Your task to perform on an android device: add a contact in the contacts app Image 0: 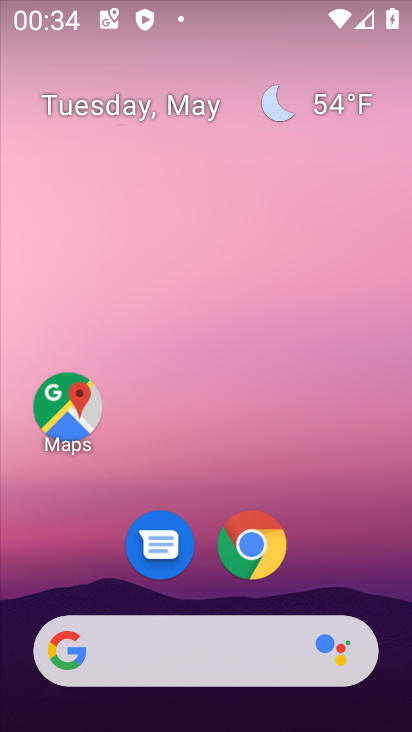
Step 0: drag from (318, 581) to (307, 34)
Your task to perform on an android device: add a contact in the contacts app Image 1: 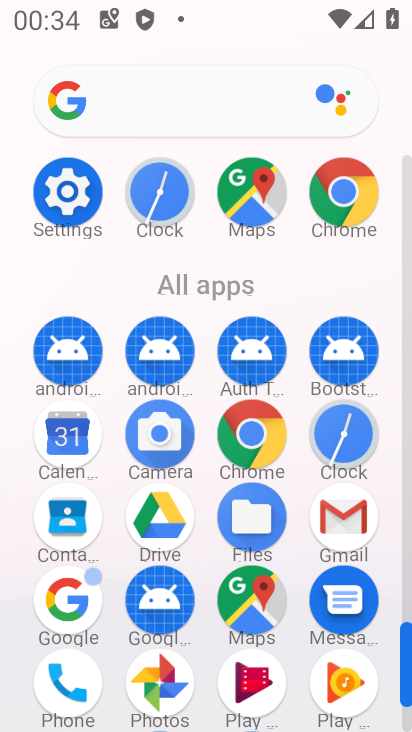
Step 1: click (74, 515)
Your task to perform on an android device: add a contact in the contacts app Image 2: 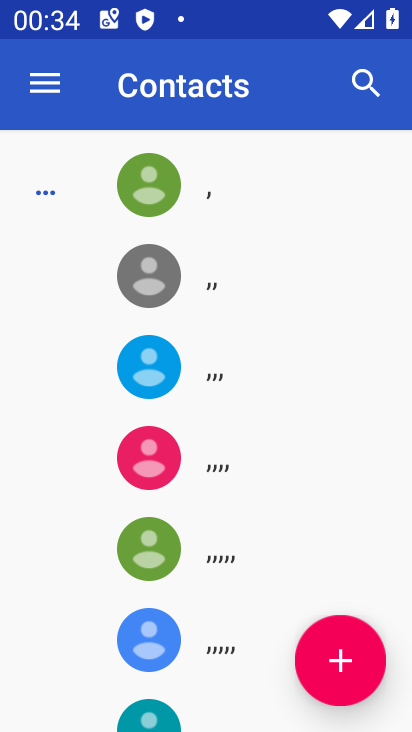
Step 2: click (330, 665)
Your task to perform on an android device: add a contact in the contacts app Image 3: 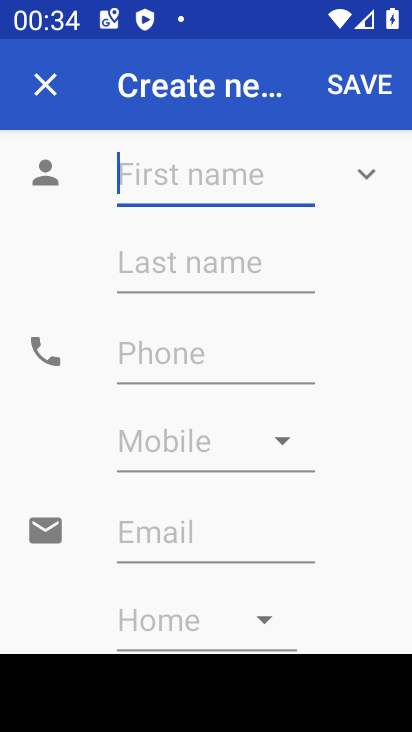
Step 3: type "dfff"
Your task to perform on an android device: add a contact in the contacts app Image 4: 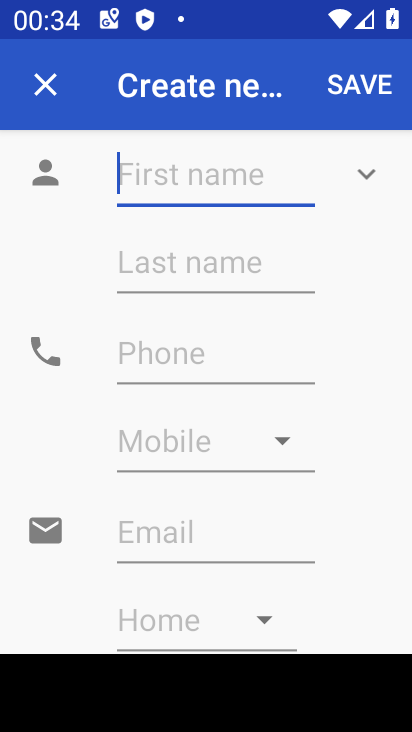
Step 4: click (210, 359)
Your task to perform on an android device: add a contact in the contacts app Image 5: 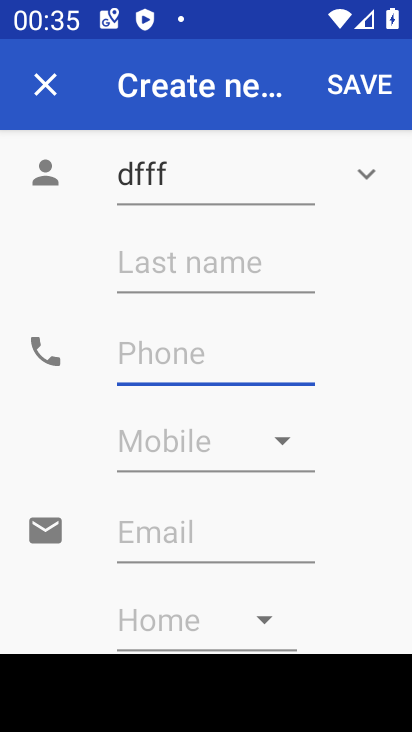
Step 5: type "5665566556"
Your task to perform on an android device: add a contact in the contacts app Image 6: 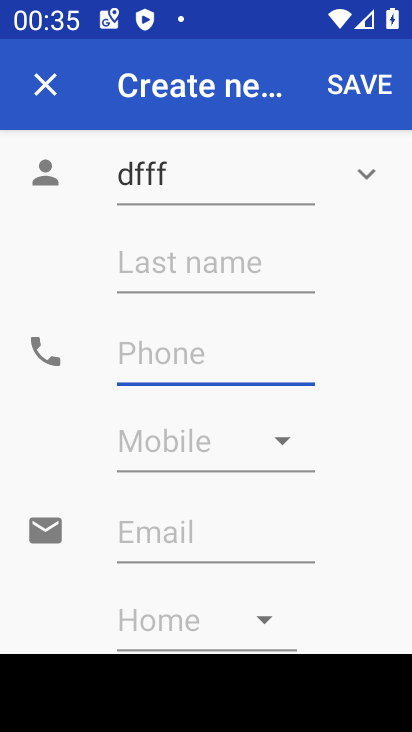
Step 6: click (368, 83)
Your task to perform on an android device: add a contact in the contacts app Image 7: 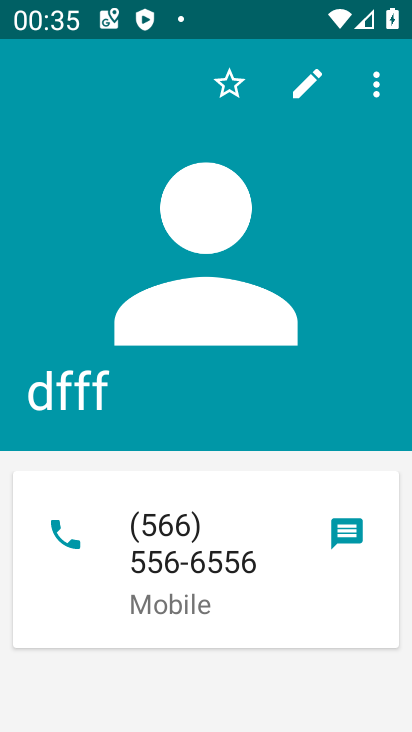
Step 7: task complete